Your task to perform on an android device: change your default location settings in chrome Image 0: 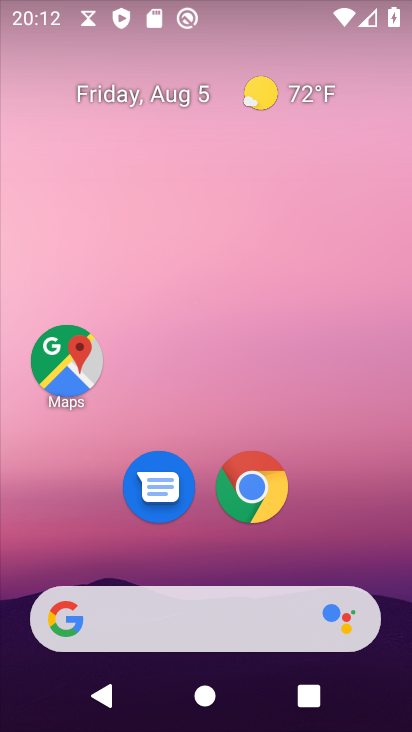
Step 0: click (254, 486)
Your task to perform on an android device: change your default location settings in chrome Image 1: 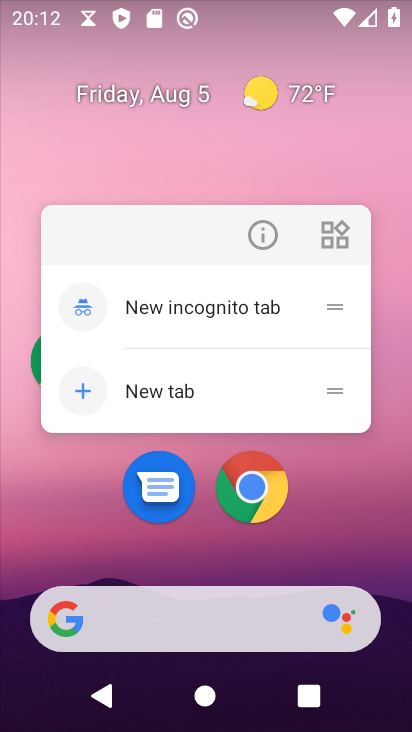
Step 1: click (254, 489)
Your task to perform on an android device: change your default location settings in chrome Image 2: 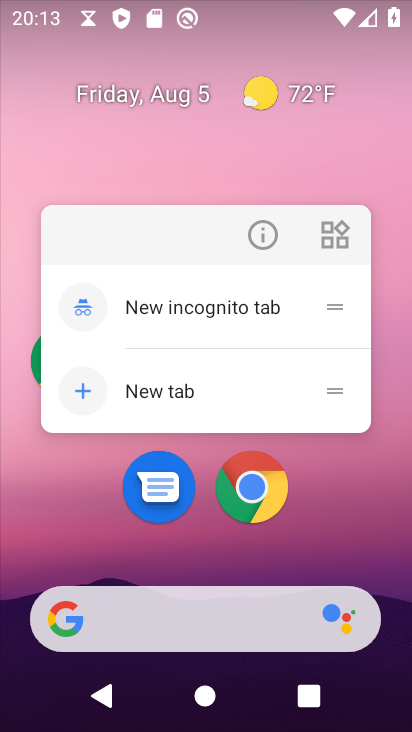
Step 2: click (254, 494)
Your task to perform on an android device: change your default location settings in chrome Image 3: 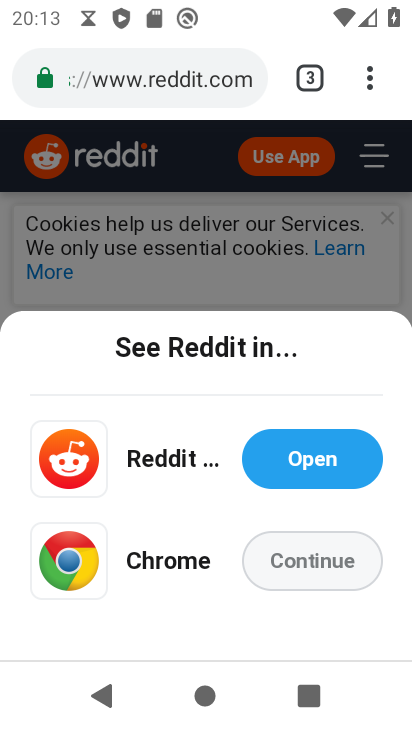
Step 3: drag from (362, 84) to (201, 528)
Your task to perform on an android device: change your default location settings in chrome Image 4: 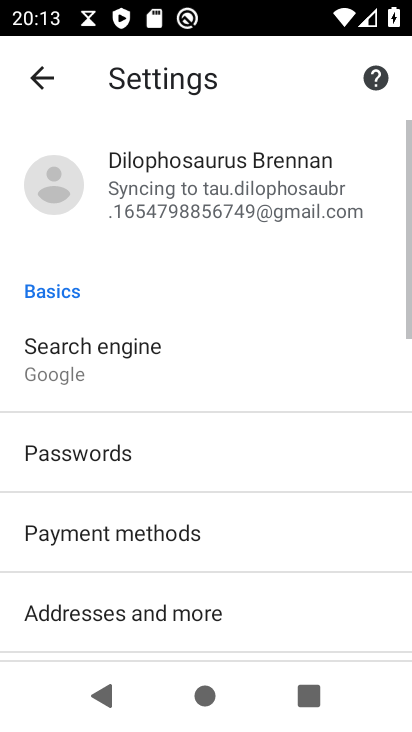
Step 4: drag from (231, 573) to (340, 169)
Your task to perform on an android device: change your default location settings in chrome Image 5: 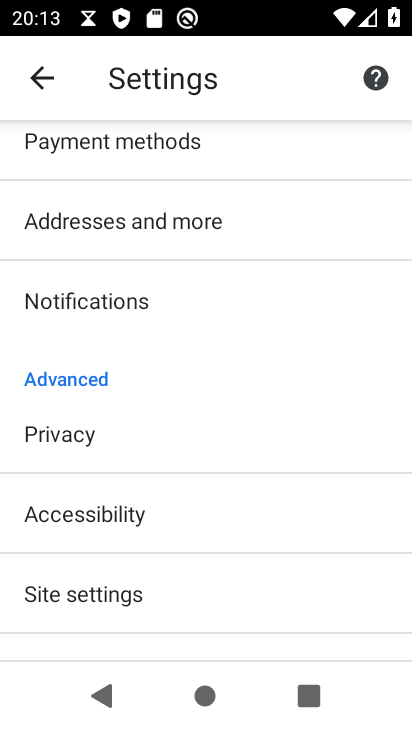
Step 5: click (142, 590)
Your task to perform on an android device: change your default location settings in chrome Image 6: 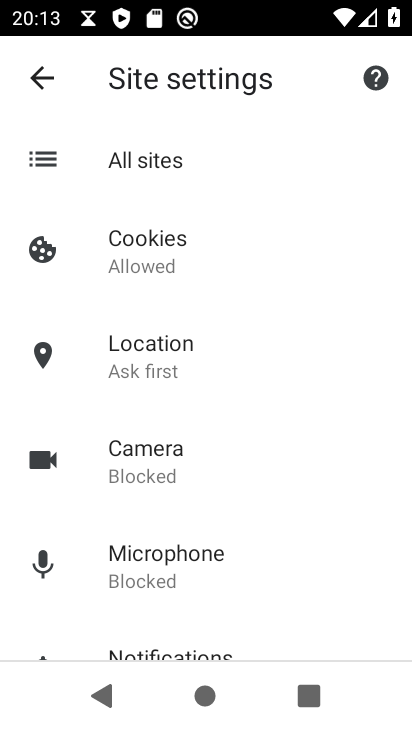
Step 6: drag from (278, 538) to (316, 232)
Your task to perform on an android device: change your default location settings in chrome Image 7: 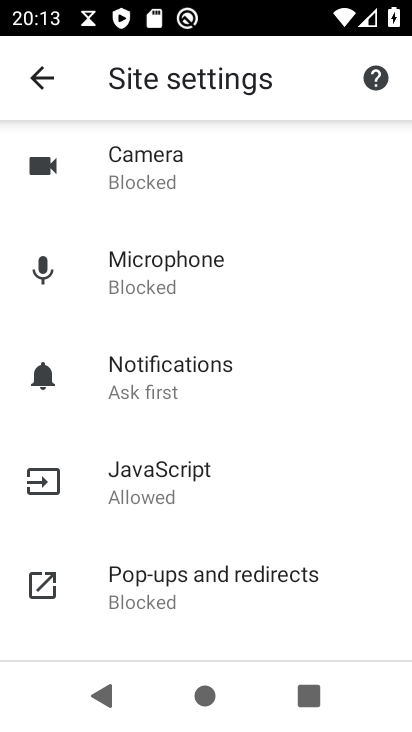
Step 7: drag from (365, 218) to (357, 582)
Your task to perform on an android device: change your default location settings in chrome Image 8: 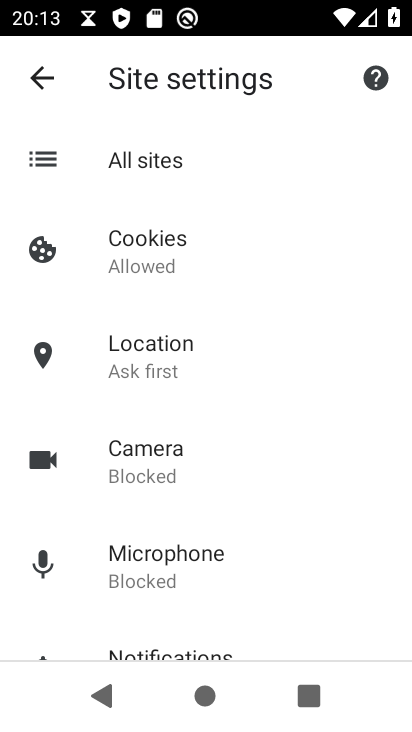
Step 8: click (154, 353)
Your task to perform on an android device: change your default location settings in chrome Image 9: 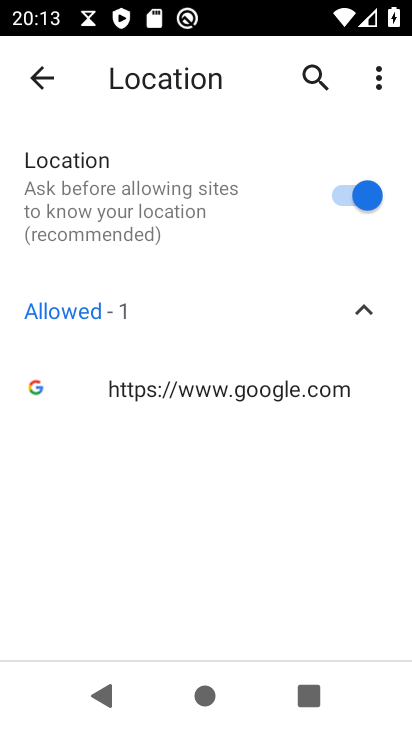
Step 9: click (348, 198)
Your task to perform on an android device: change your default location settings in chrome Image 10: 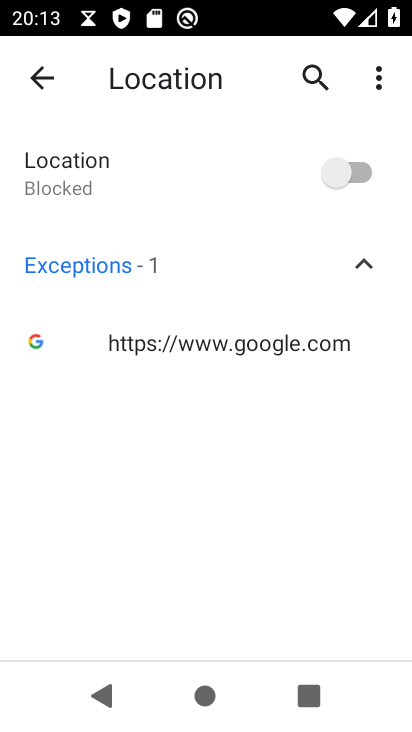
Step 10: click (343, 194)
Your task to perform on an android device: change your default location settings in chrome Image 11: 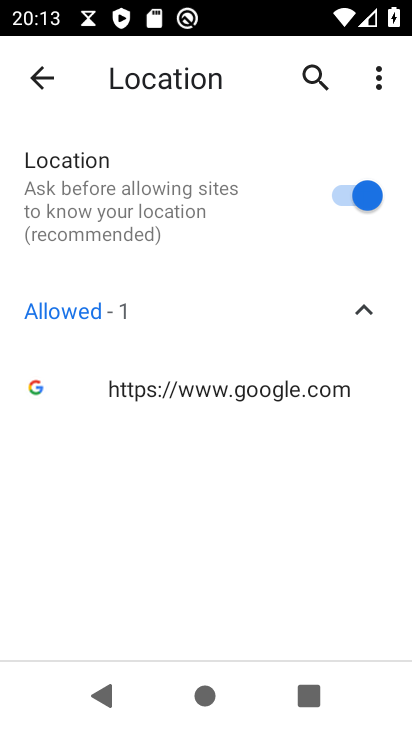
Step 11: click (347, 198)
Your task to perform on an android device: change your default location settings in chrome Image 12: 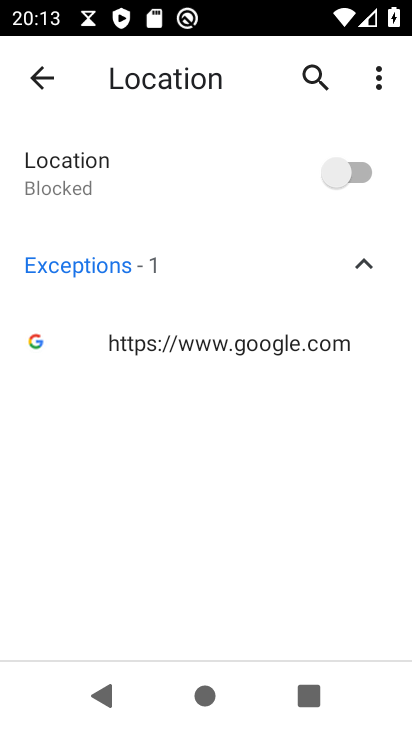
Step 12: task complete